Your task to perform on an android device: Open ESPN.com Image 0: 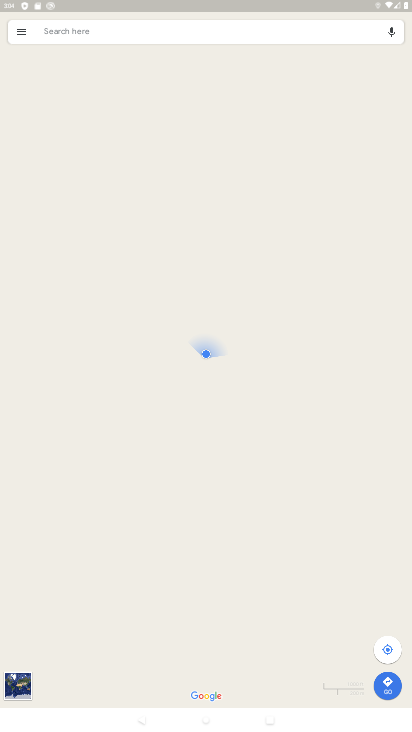
Step 0: press home button
Your task to perform on an android device: Open ESPN.com Image 1: 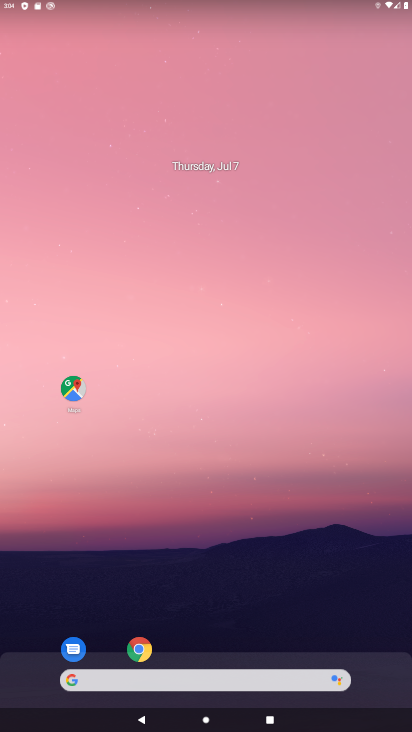
Step 1: drag from (367, 664) to (303, 27)
Your task to perform on an android device: Open ESPN.com Image 2: 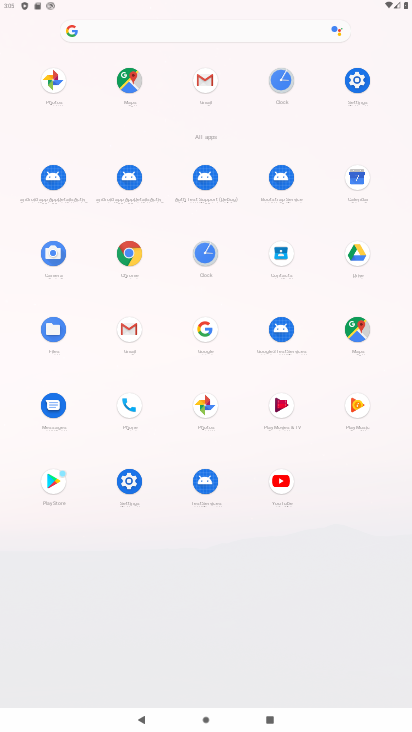
Step 2: click (202, 332)
Your task to perform on an android device: Open ESPN.com Image 3: 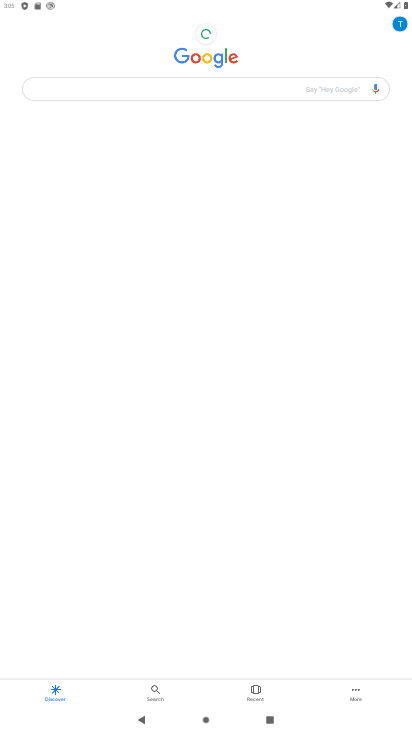
Step 3: click (173, 90)
Your task to perform on an android device: Open ESPN.com Image 4: 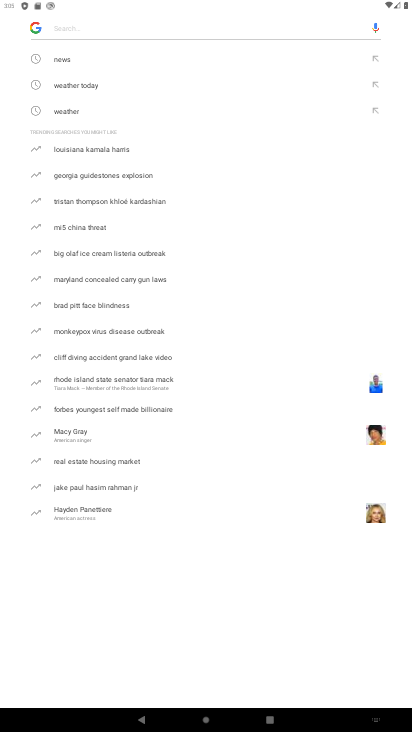
Step 4: type "espn.com"
Your task to perform on an android device: Open ESPN.com Image 5: 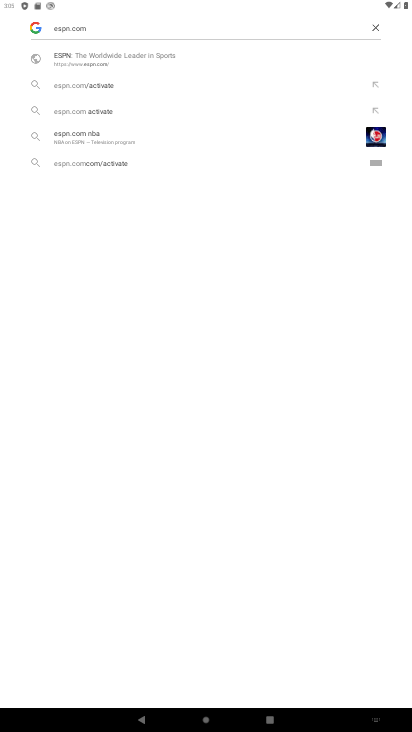
Step 5: click (120, 63)
Your task to perform on an android device: Open ESPN.com Image 6: 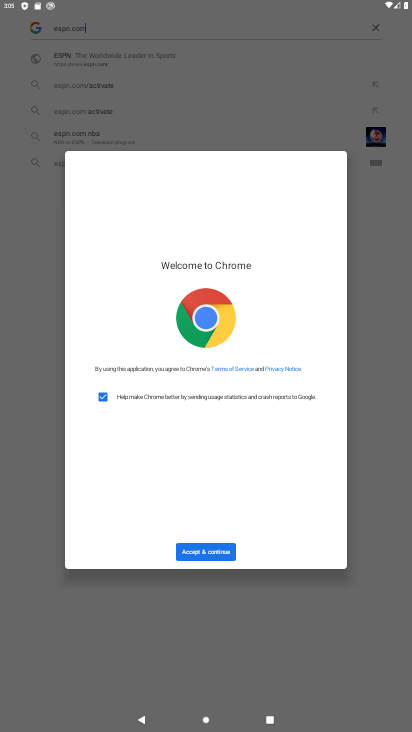
Step 6: click (206, 559)
Your task to perform on an android device: Open ESPN.com Image 7: 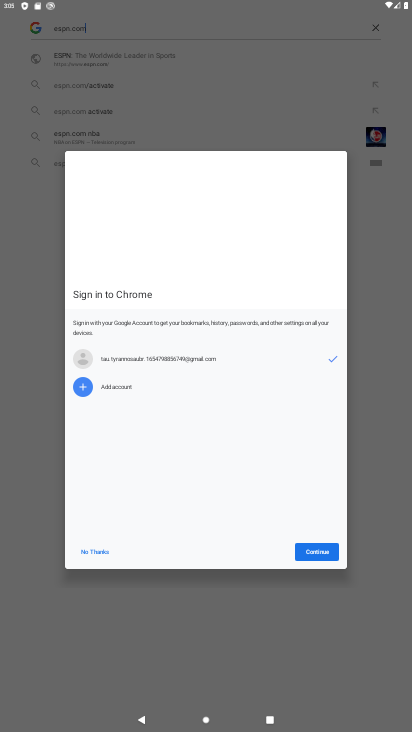
Step 7: click (311, 548)
Your task to perform on an android device: Open ESPN.com Image 8: 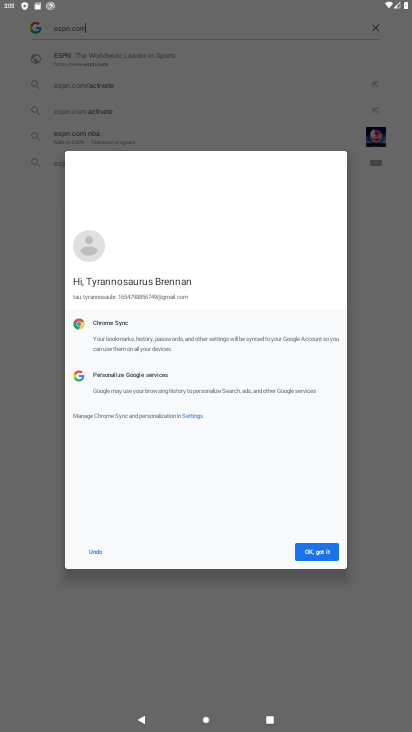
Step 8: click (311, 548)
Your task to perform on an android device: Open ESPN.com Image 9: 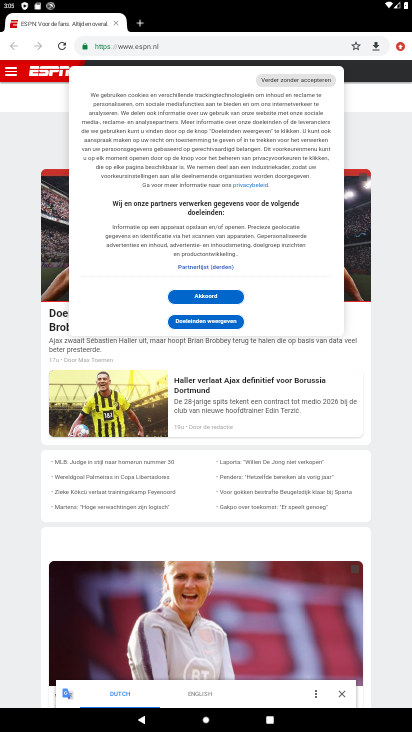
Step 9: task complete